Your task to perform on an android device: What's the weather going to be this weekend? Image 0: 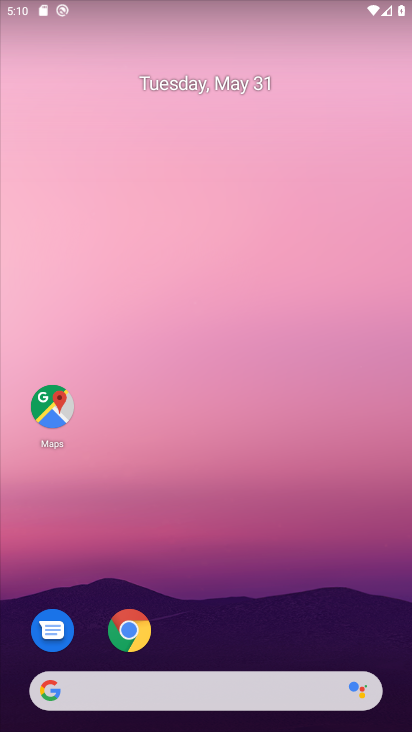
Step 0: click (183, 686)
Your task to perform on an android device: What's the weather going to be this weekend? Image 1: 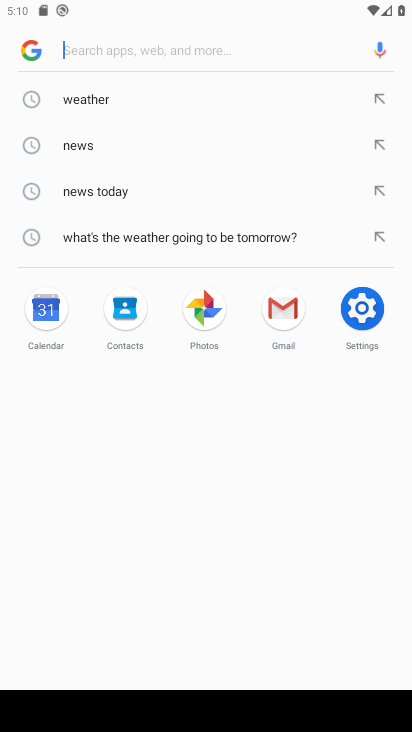
Step 1: click (197, 113)
Your task to perform on an android device: What's the weather going to be this weekend? Image 2: 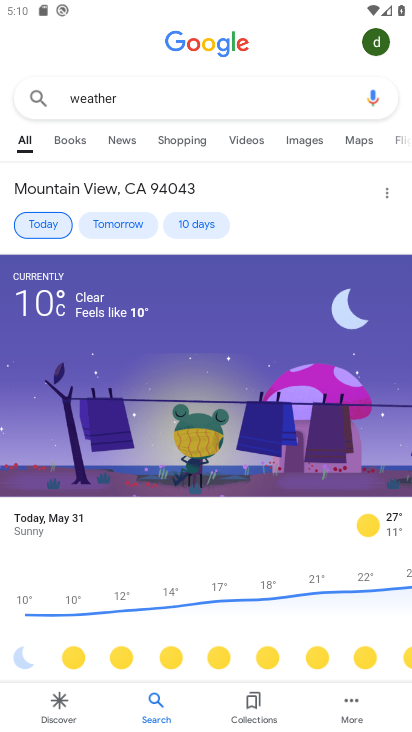
Step 2: click (198, 229)
Your task to perform on an android device: What's the weather going to be this weekend? Image 3: 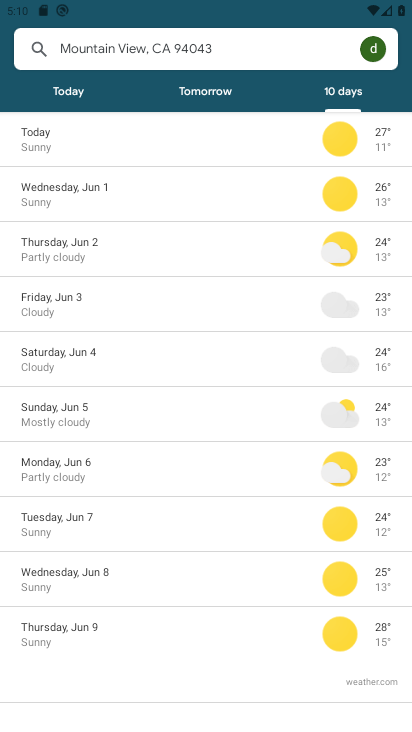
Step 3: task complete